Your task to perform on an android device: change notification settings in the gmail app Image 0: 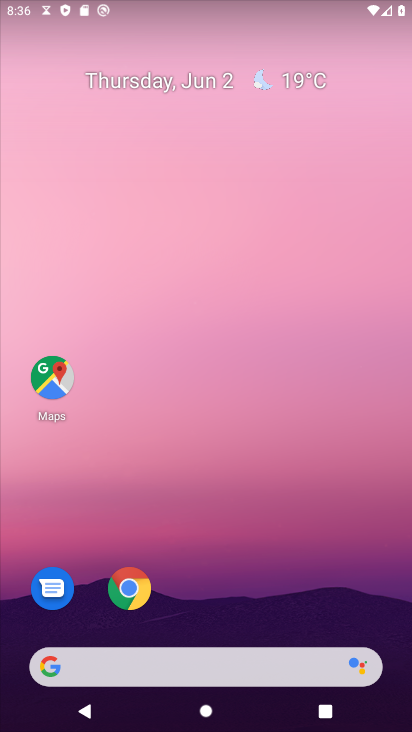
Step 0: drag from (248, 598) to (259, 151)
Your task to perform on an android device: change notification settings in the gmail app Image 1: 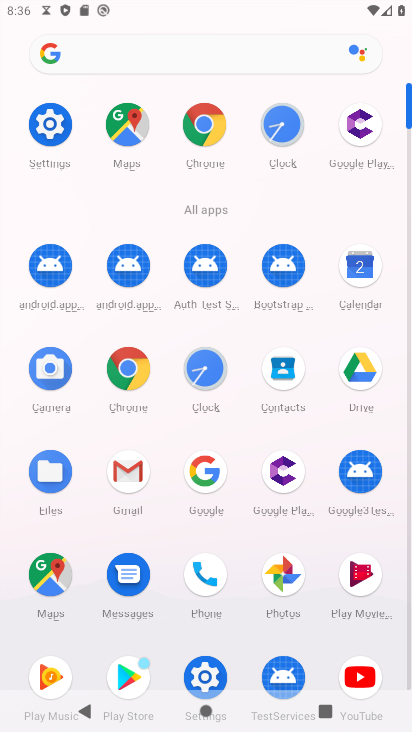
Step 1: click (125, 475)
Your task to perform on an android device: change notification settings in the gmail app Image 2: 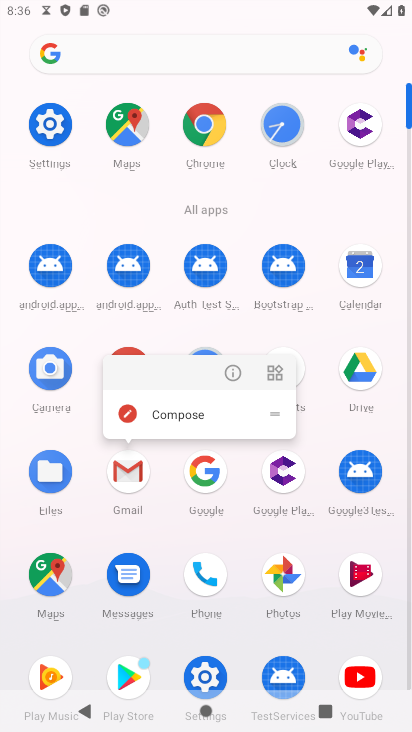
Step 2: click (233, 373)
Your task to perform on an android device: change notification settings in the gmail app Image 3: 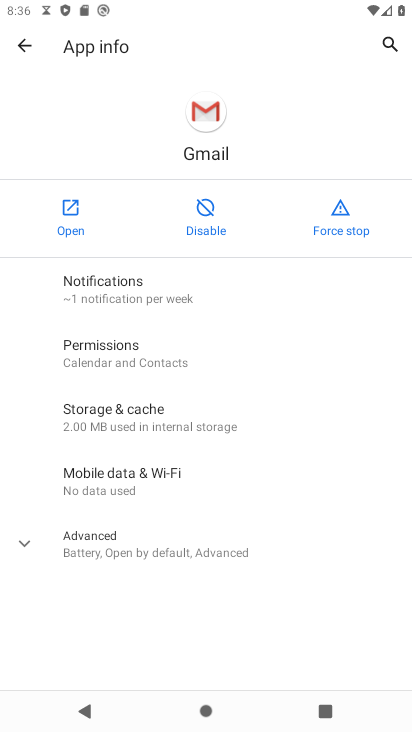
Step 3: click (106, 292)
Your task to perform on an android device: change notification settings in the gmail app Image 4: 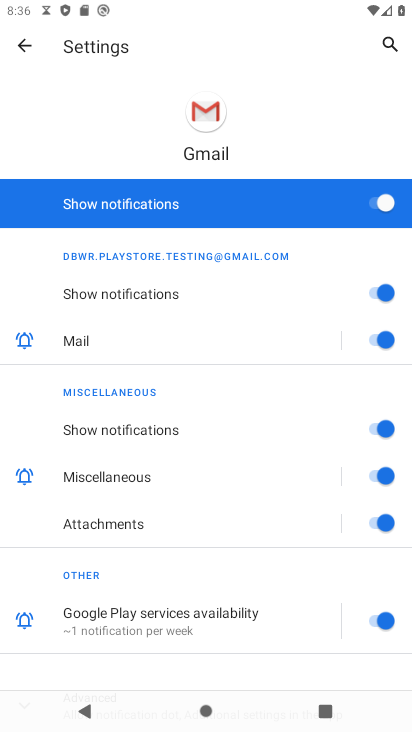
Step 4: click (390, 292)
Your task to perform on an android device: change notification settings in the gmail app Image 5: 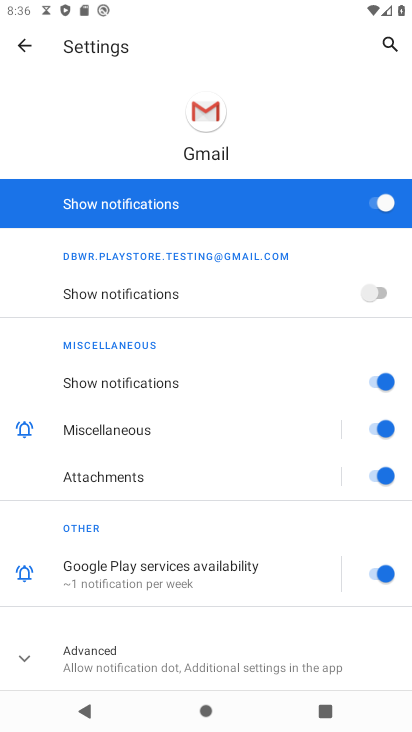
Step 5: task complete